Your task to perform on an android device: turn off wifi Image 0: 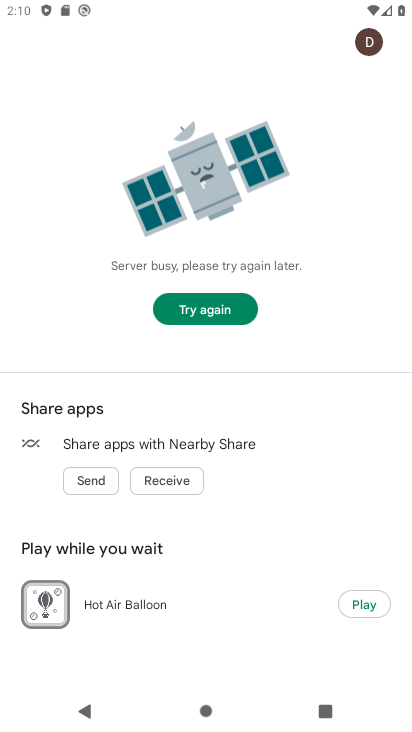
Step 0: press home button
Your task to perform on an android device: turn off wifi Image 1: 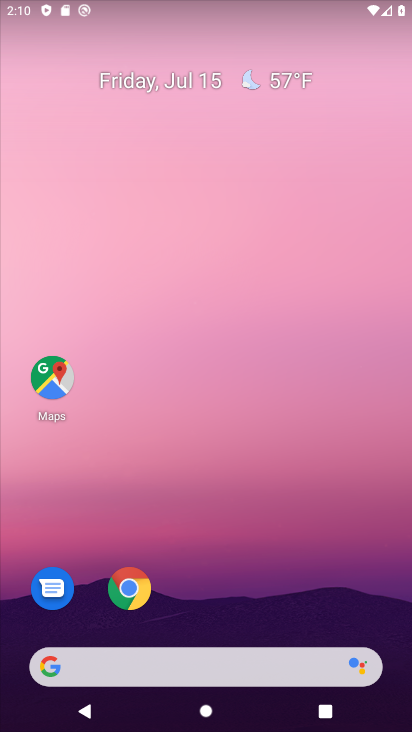
Step 1: drag from (233, 12) to (209, 383)
Your task to perform on an android device: turn off wifi Image 2: 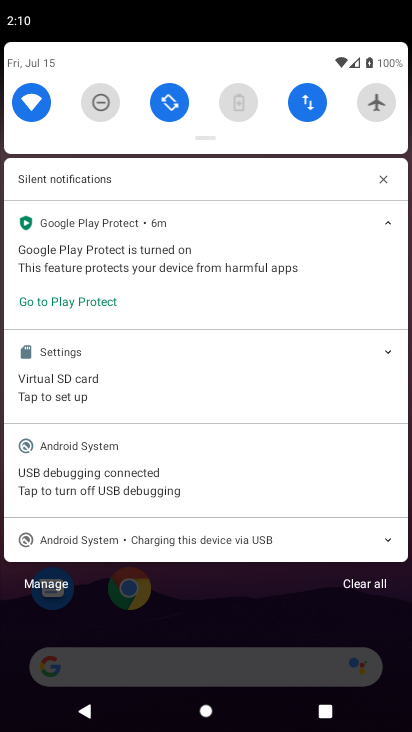
Step 2: click (40, 114)
Your task to perform on an android device: turn off wifi Image 3: 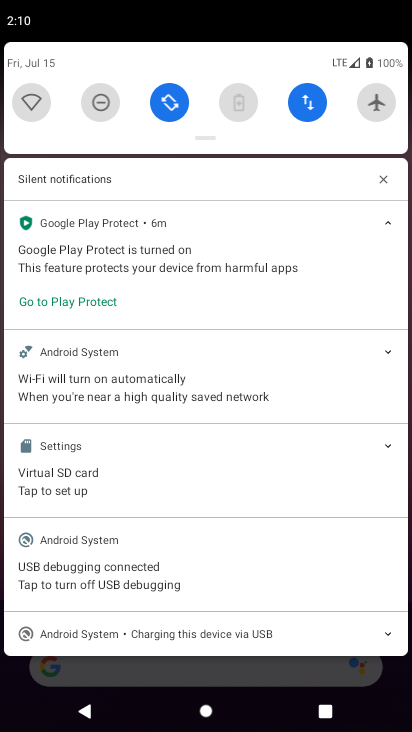
Step 3: task complete